Your task to perform on an android device: empty trash in google photos Image 0: 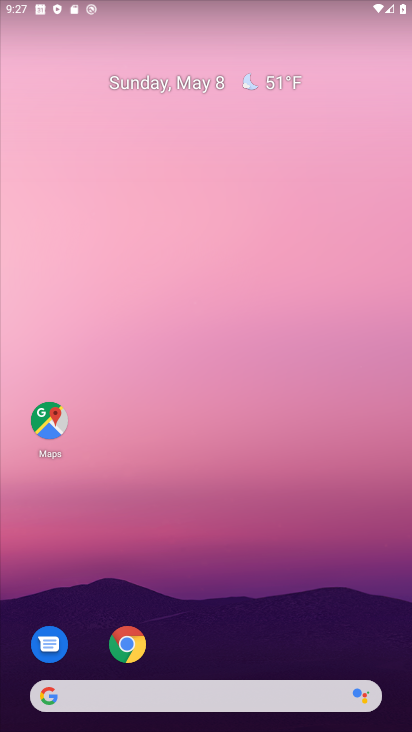
Step 0: drag from (170, 681) to (270, 215)
Your task to perform on an android device: empty trash in google photos Image 1: 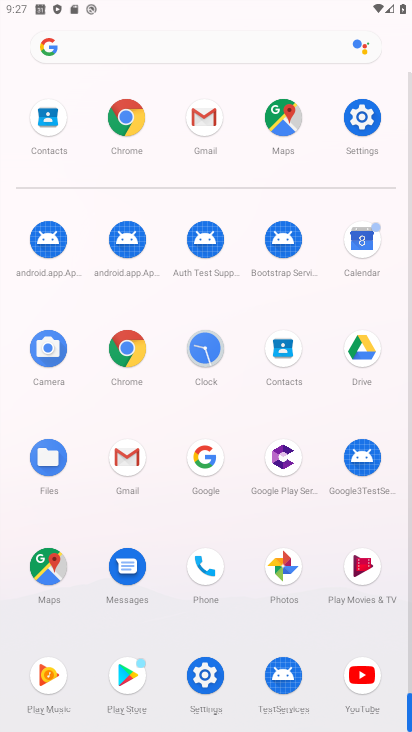
Step 1: click (277, 567)
Your task to perform on an android device: empty trash in google photos Image 2: 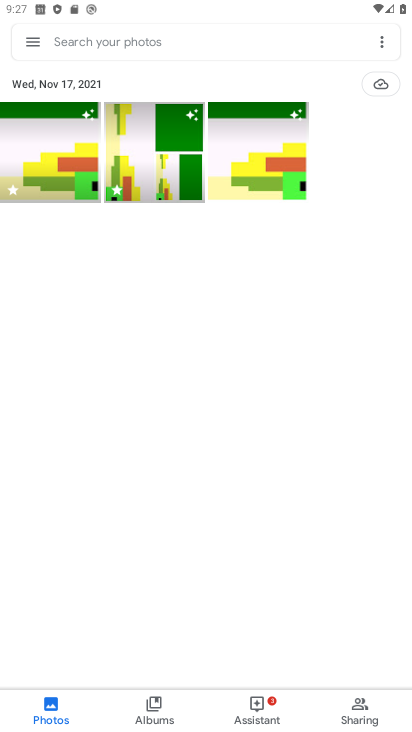
Step 2: drag from (184, 652) to (218, 363)
Your task to perform on an android device: empty trash in google photos Image 3: 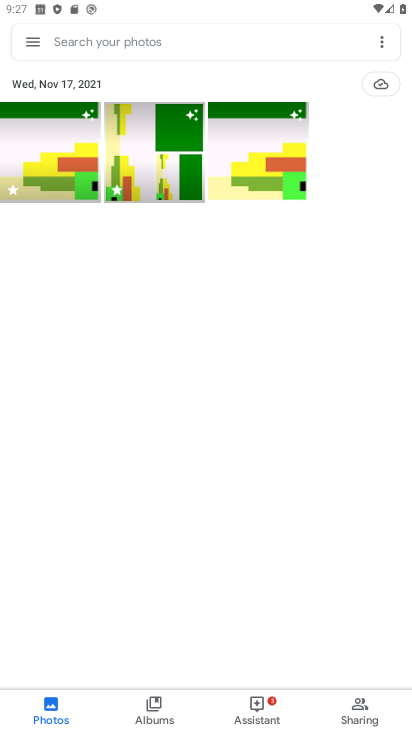
Step 3: click (44, 52)
Your task to perform on an android device: empty trash in google photos Image 4: 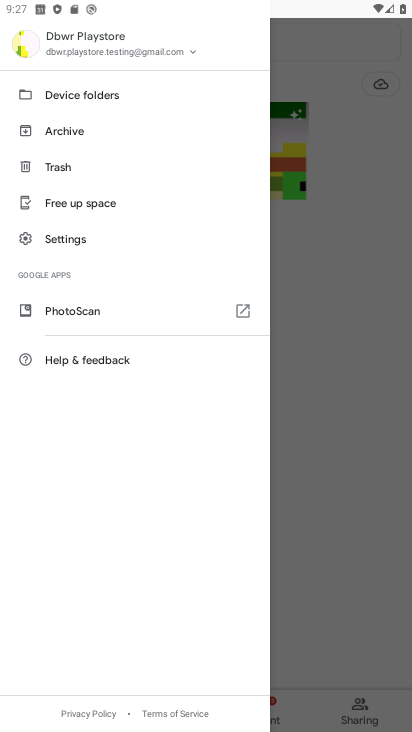
Step 4: click (68, 168)
Your task to perform on an android device: empty trash in google photos Image 5: 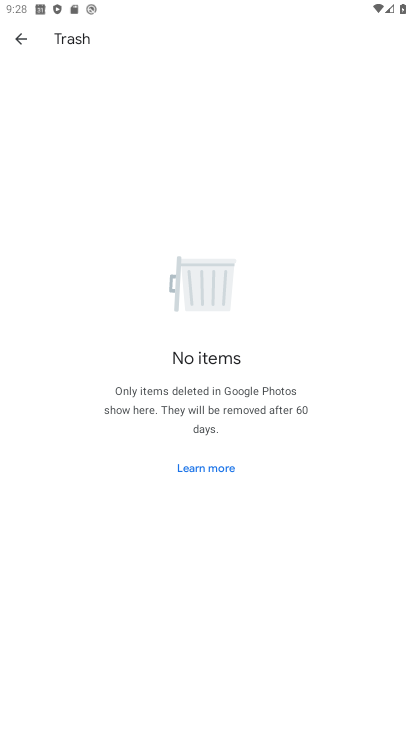
Step 5: click (273, 380)
Your task to perform on an android device: empty trash in google photos Image 6: 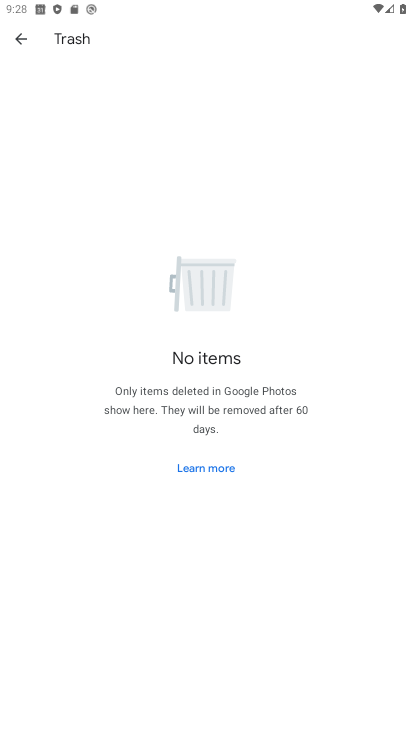
Step 6: task complete